Your task to perform on an android device: read, delete, or share a saved page in the chrome app Image 0: 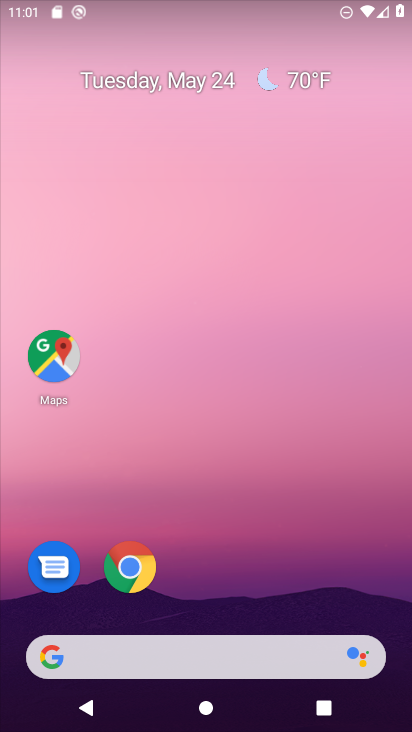
Step 0: click (126, 569)
Your task to perform on an android device: read, delete, or share a saved page in the chrome app Image 1: 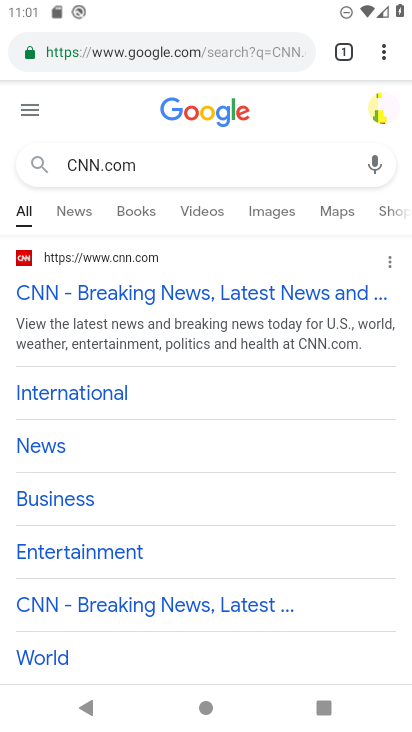
Step 1: click (382, 52)
Your task to perform on an android device: read, delete, or share a saved page in the chrome app Image 2: 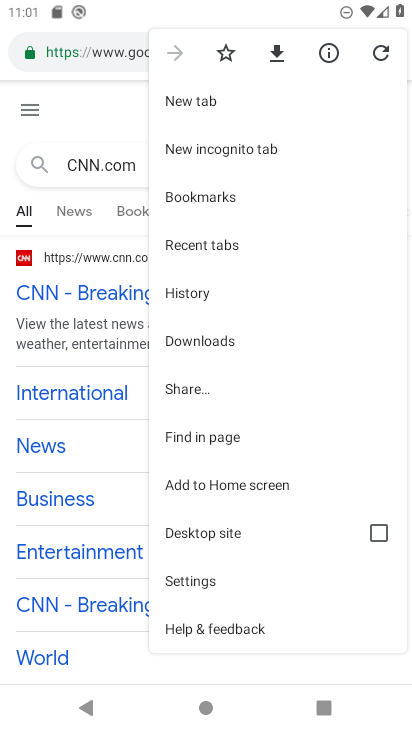
Step 2: click (183, 579)
Your task to perform on an android device: read, delete, or share a saved page in the chrome app Image 3: 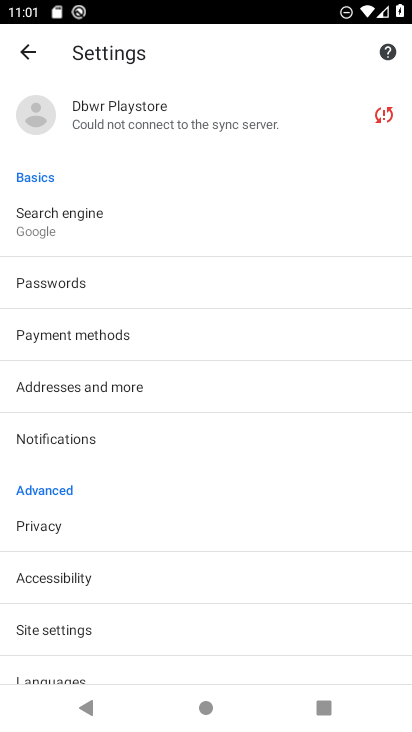
Step 3: drag from (189, 634) to (181, 310)
Your task to perform on an android device: read, delete, or share a saved page in the chrome app Image 4: 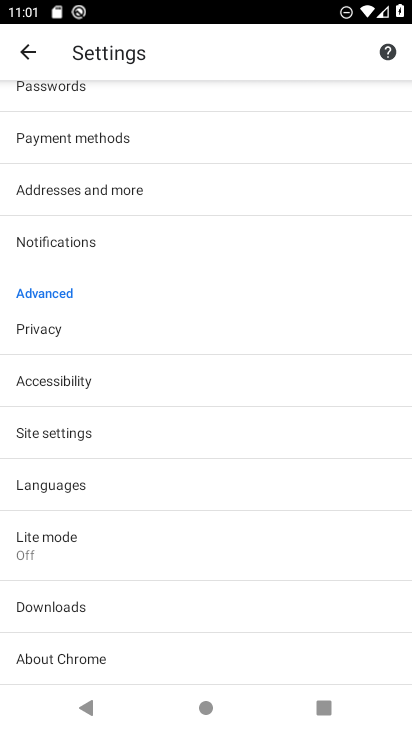
Step 4: drag from (193, 216) to (207, 531)
Your task to perform on an android device: read, delete, or share a saved page in the chrome app Image 5: 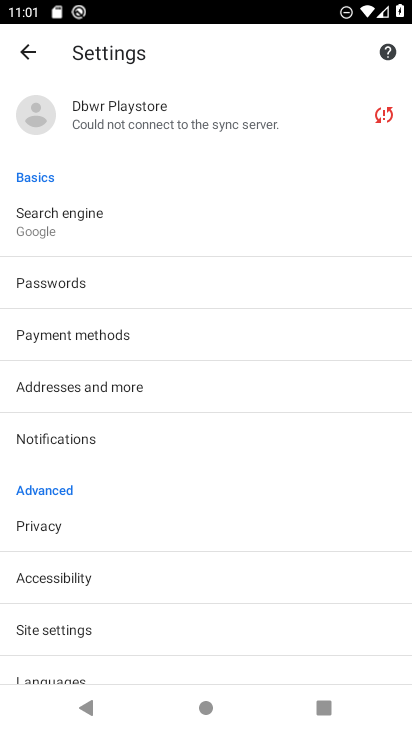
Step 5: click (29, 52)
Your task to perform on an android device: read, delete, or share a saved page in the chrome app Image 6: 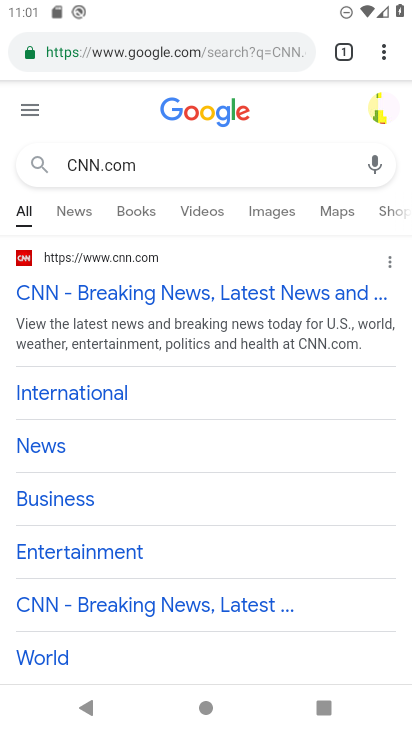
Step 6: click (381, 50)
Your task to perform on an android device: read, delete, or share a saved page in the chrome app Image 7: 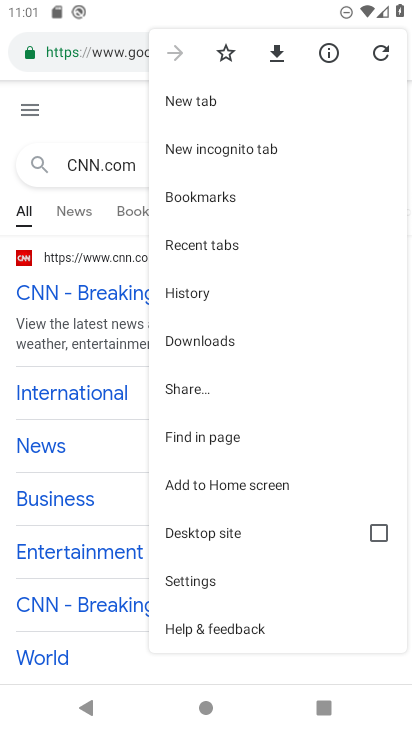
Step 7: click (183, 333)
Your task to perform on an android device: read, delete, or share a saved page in the chrome app Image 8: 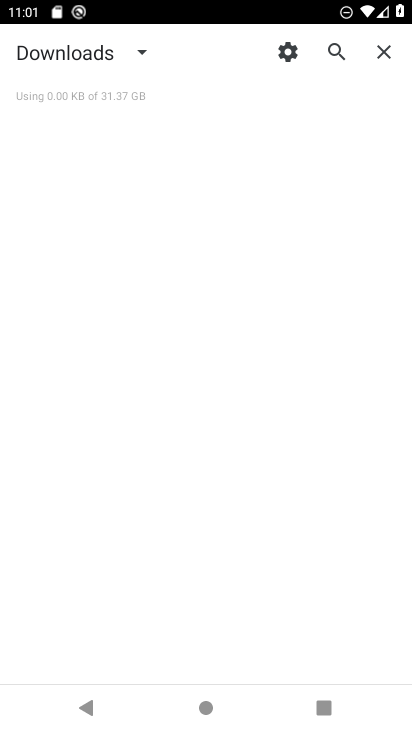
Step 8: task complete